Your task to perform on an android device: Go to notification settings Image 0: 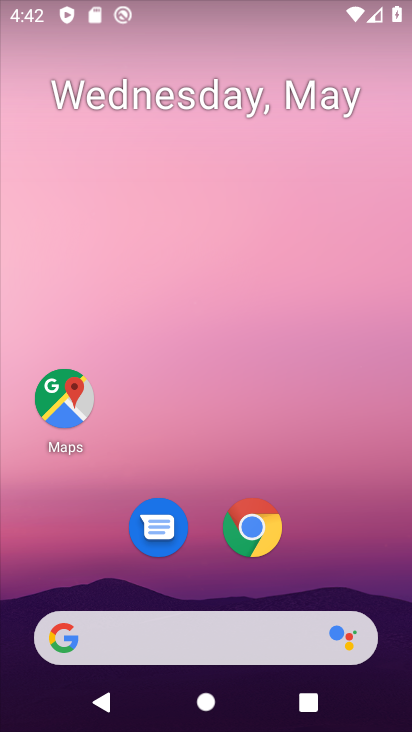
Step 0: drag from (236, 437) to (272, 1)
Your task to perform on an android device: Go to notification settings Image 1: 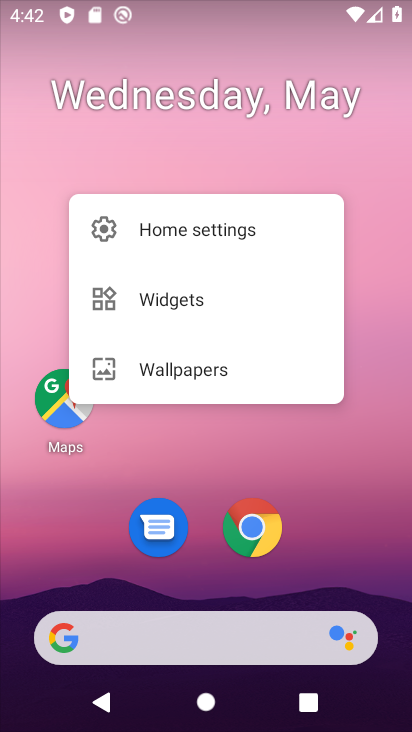
Step 1: click (200, 528)
Your task to perform on an android device: Go to notification settings Image 2: 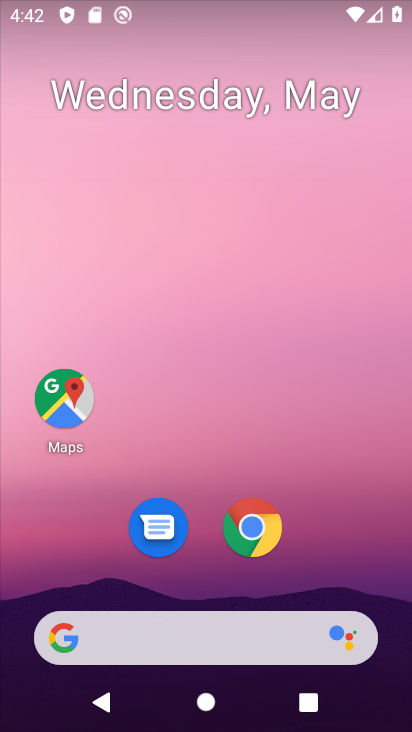
Step 2: drag from (194, 589) to (233, 36)
Your task to perform on an android device: Go to notification settings Image 3: 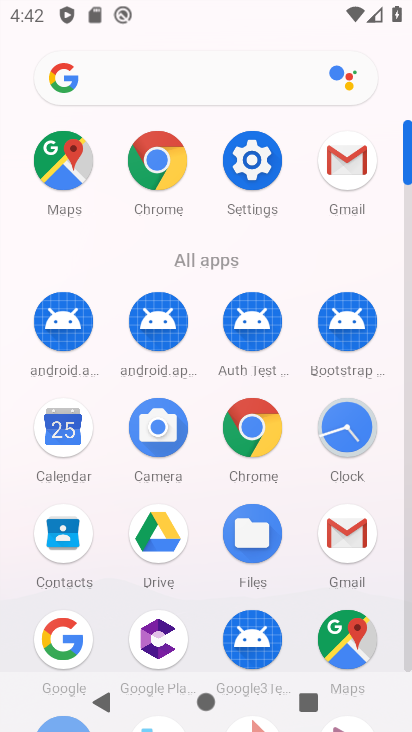
Step 3: click (253, 168)
Your task to perform on an android device: Go to notification settings Image 4: 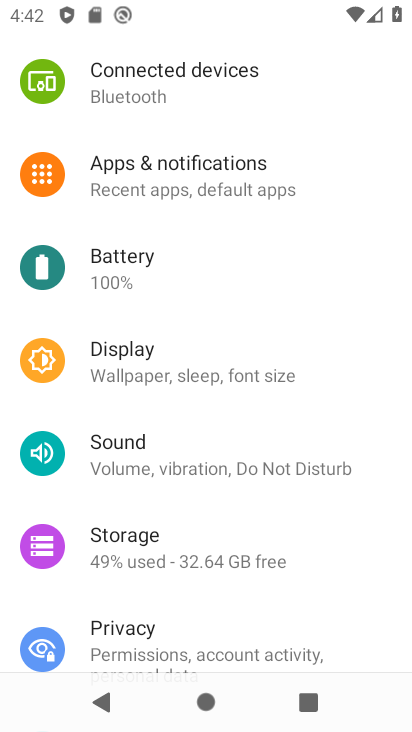
Step 4: click (157, 182)
Your task to perform on an android device: Go to notification settings Image 5: 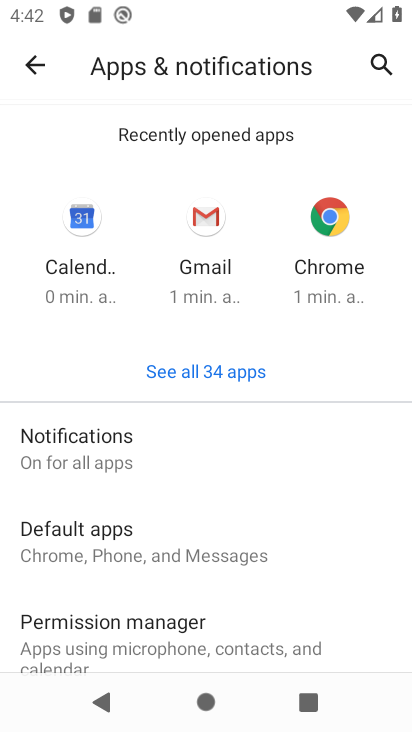
Step 5: click (96, 457)
Your task to perform on an android device: Go to notification settings Image 6: 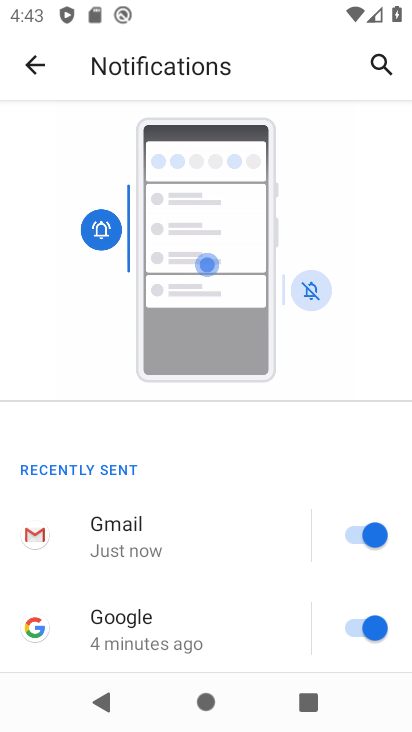
Step 6: task complete